Your task to perform on an android device: toggle data saver in the chrome app Image 0: 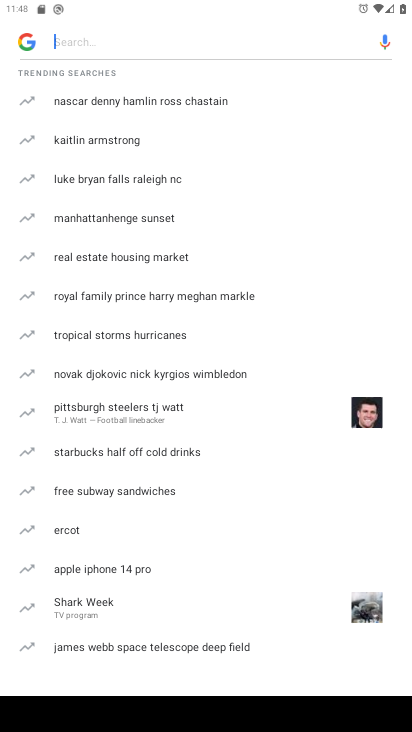
Step 0: press home button
Your task to perform on an android device: toggle data saver in the chrome app Image 1: 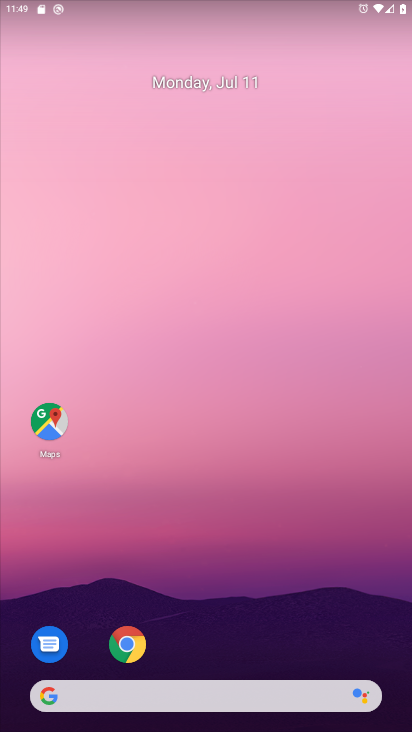
Step 1: click (131, 641)
Your task to perform on an android device: toggle data saver in the chrome app Image 2: 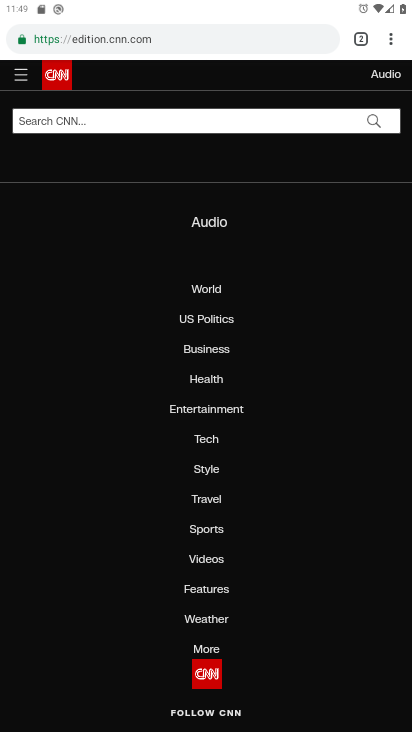
Step 2: click (391, 37)
Your task to perform on an android device: toggle data saver in the chrome app Image 3: 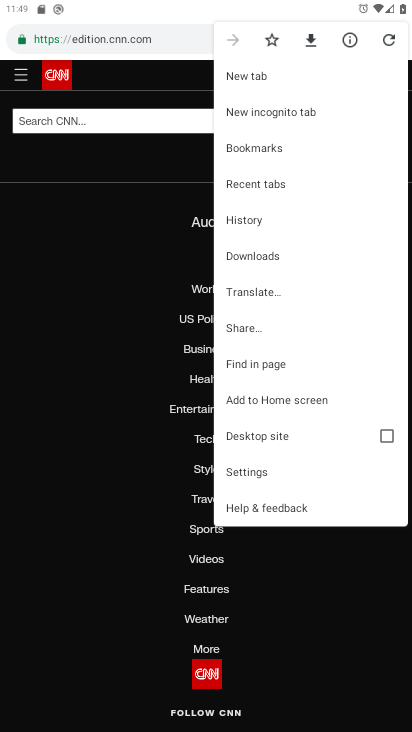
Step 3: click (246, 478)
Your task to perform on an android device: toggle data saver in the chrome app Image 4: 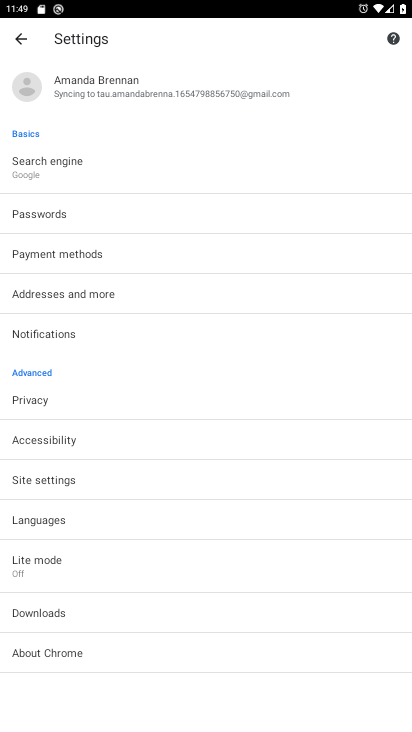
Step 4: click (59, 560)
Your task to perform on an android device: toggle data saver in the chrome app Image 5: 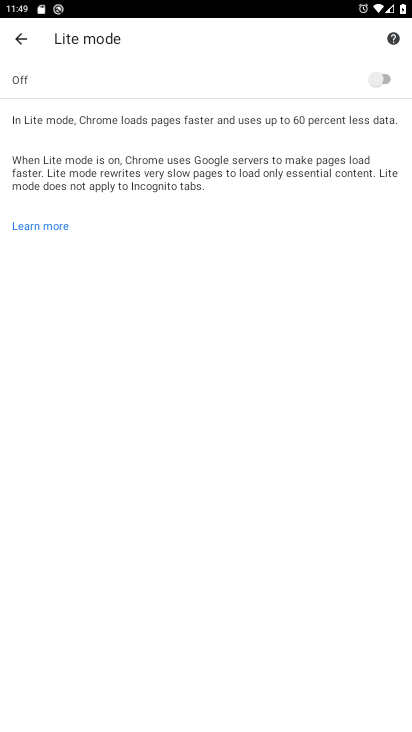
Step 5: click (391, 67)
Your task to perform on an android device: toggle data saver in the chrome app Image 6: 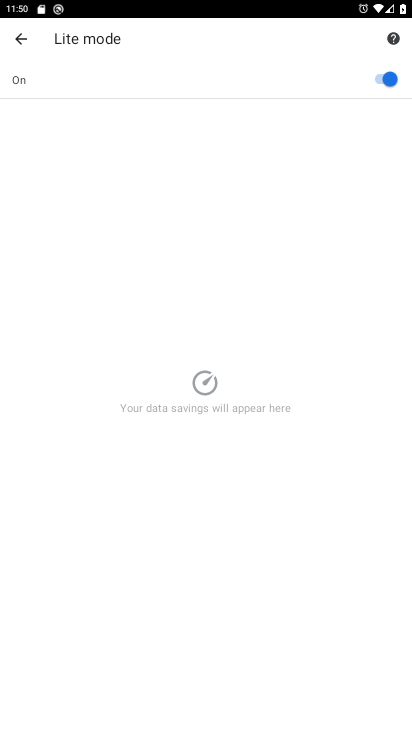
Step 6: task complete